Your task to perform on an android device: turn off priority inbox in the gmail app Image 0: 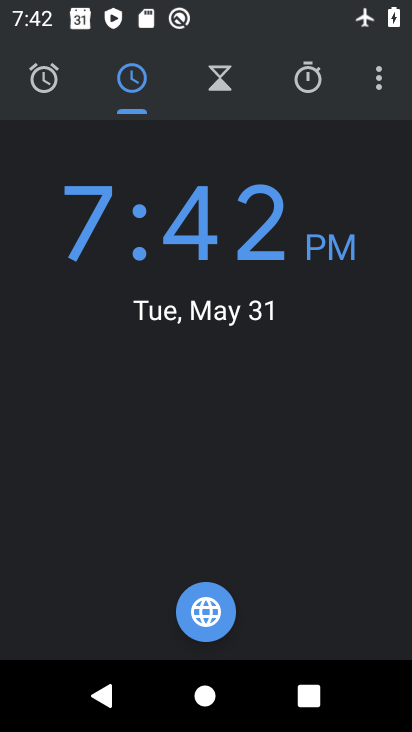
Step 0: press home button
Your task to perform on an android device: turn off priority inbox in the gmail app Image 1: 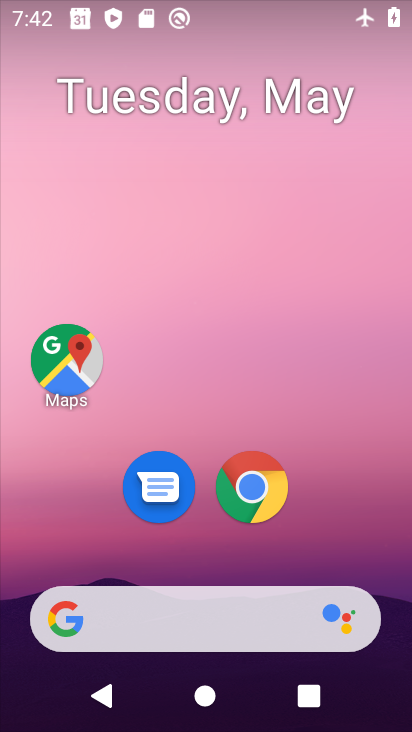
Step 1: drag from (374, 562) to (368, 206)
Your task to perform on an android device: turn off priority inbox in the gmail app Image 2: 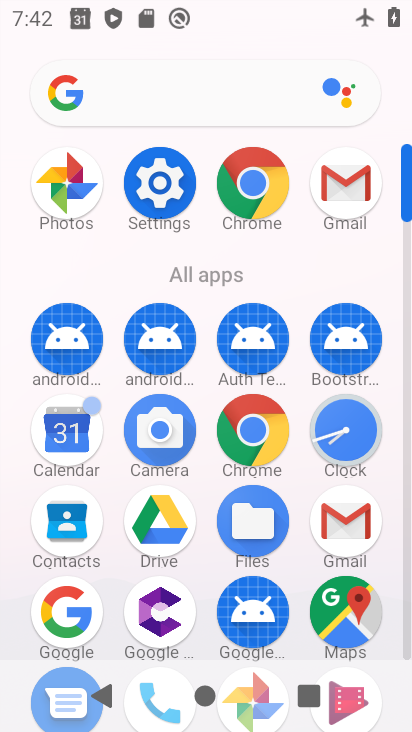
Step 2: click (351, 526)
Your task to perform on an android device: turn off priority inbox in the gmail app Image 3: 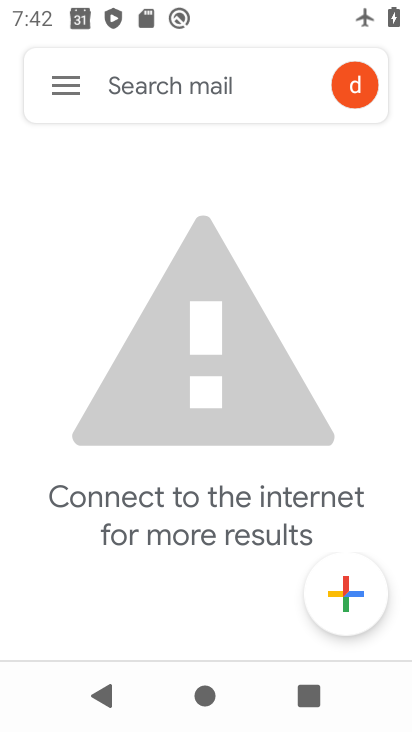
Step 3: click (59, 83)
Your task to perform on an android device: turn off priority inbox in the gmail app Image 4: 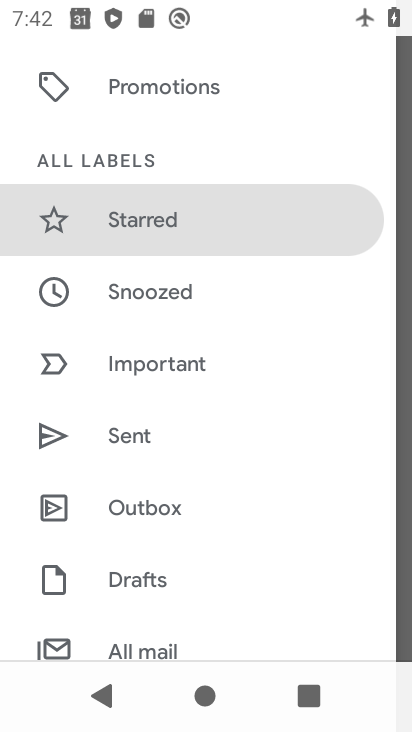
Step 4: drag from (312, 454) to (310, 370)
Your task to perform on an android device: turn off priority inbox in the gmail app Image 5: 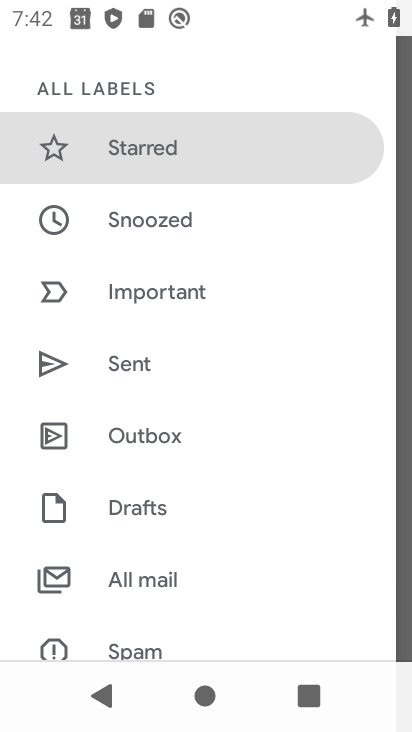
Step 5: drag from (306, 483) to (309, 332)
Your task to perform on an android device: turn off priority inbox in the gmail app Image 6: 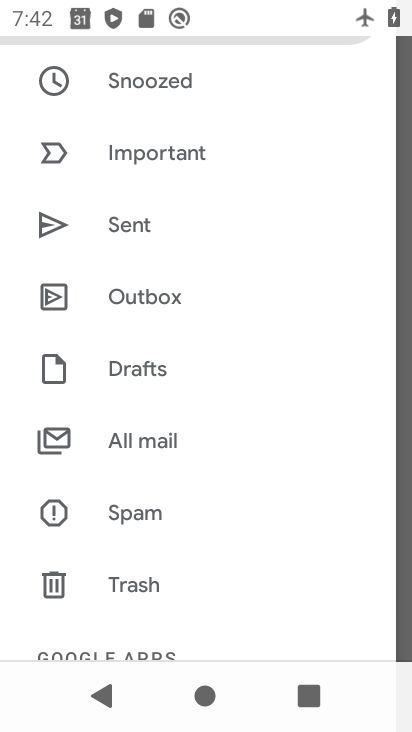
Step 6: drag from (316, 450) to (305, 404)
Your task to perform on an android device: turn off priority inbox in the gmail app Image 7: 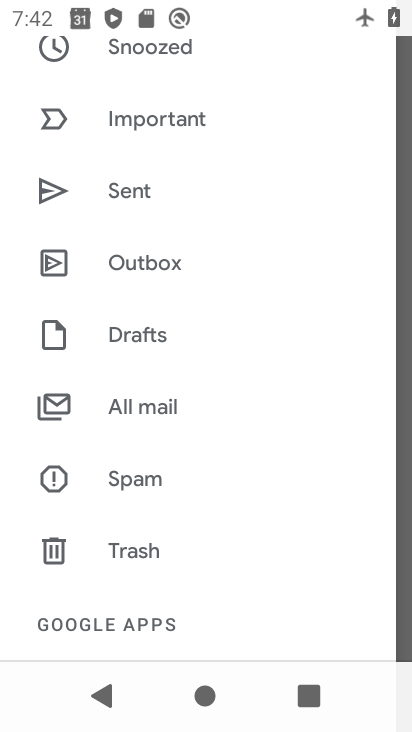
Step 7: drag from (303, 519) to (304, 399)
Your task to perform on an android device: turn off priority inbox in the gmail app Image 8: 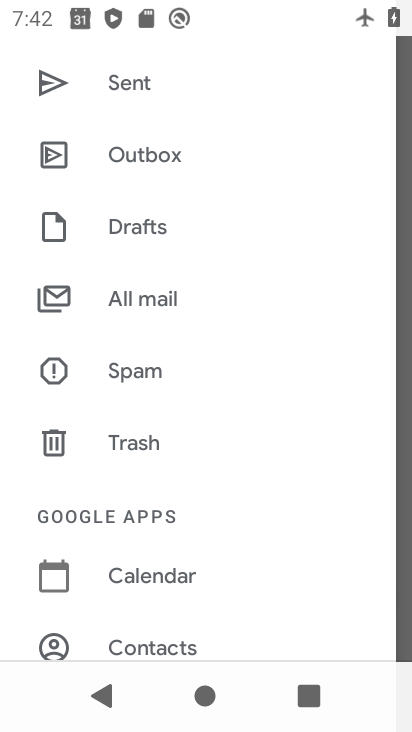
Step 8: drag from (327, 491) to (332, 344)
Your task to perform on an android device: turn off priority inbox in the gmail app Image 9: 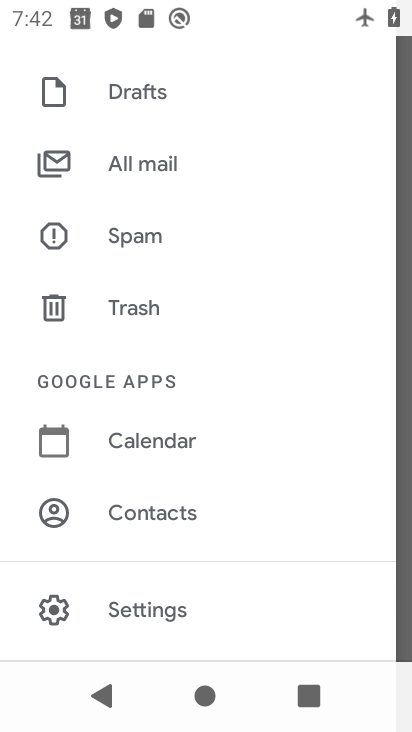
Step 9: drag from (336, 473) to (340, 318)
Your task to perform on an android device: turn off priority inbox in the gmail app Image 10: 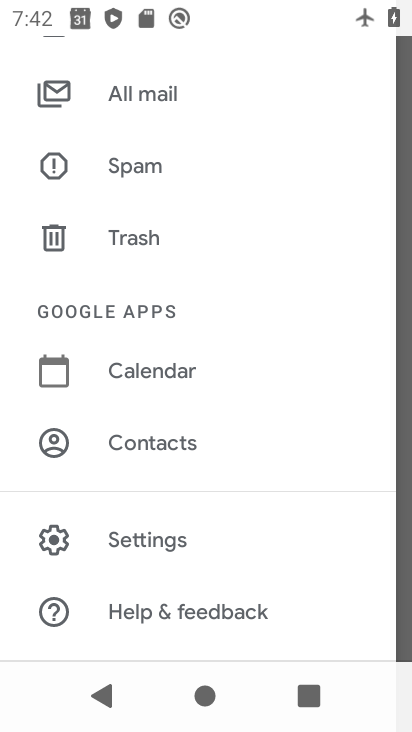
Step 10: click (211, 532)
Your task to perform on an android device: turn off priority inbox in the gmail app Image 11: 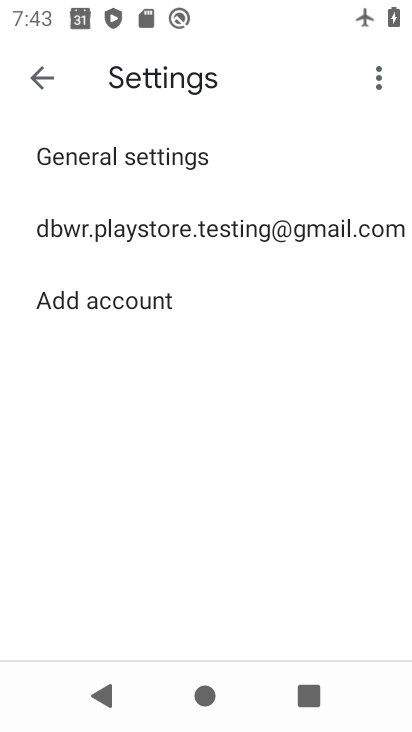
Step 11: click (295, 235)
Your task to perform on an android device: turn off priority inbox in the gmail app Image 12: 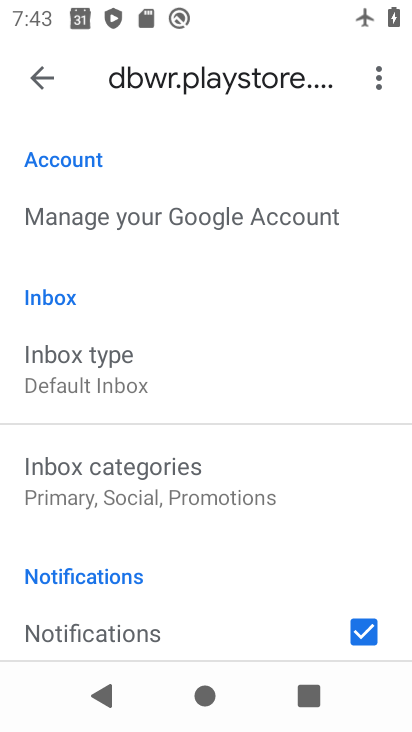
Step 12: task complete